Your task to perform on an android device: open device folders in google photos Image 0: 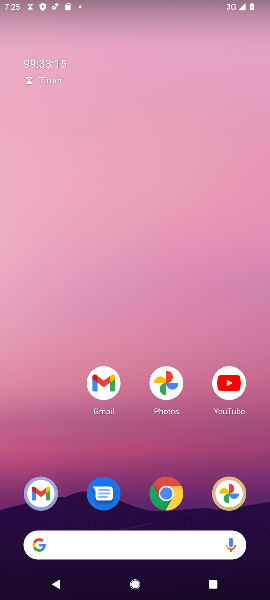
Step 0: drag from (126, 492) to (198, 17)
Your task to perform on an android device: open device folders in google photos Image 1: 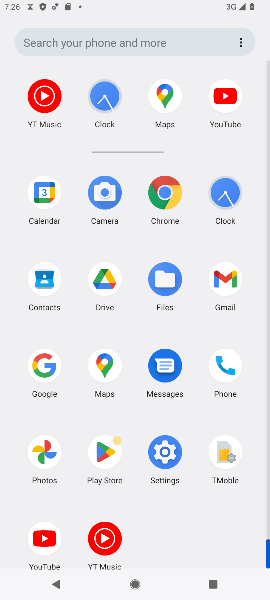
Step 1: click (43, 458)
Your task to perform on an android device: open device folders in google photos Image 2: 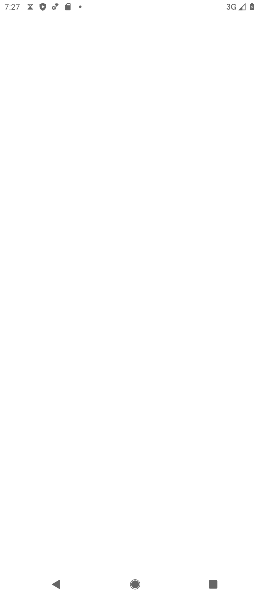
Step 2: task complete